Your task to perform on an android device: Open Amazon Image 0: 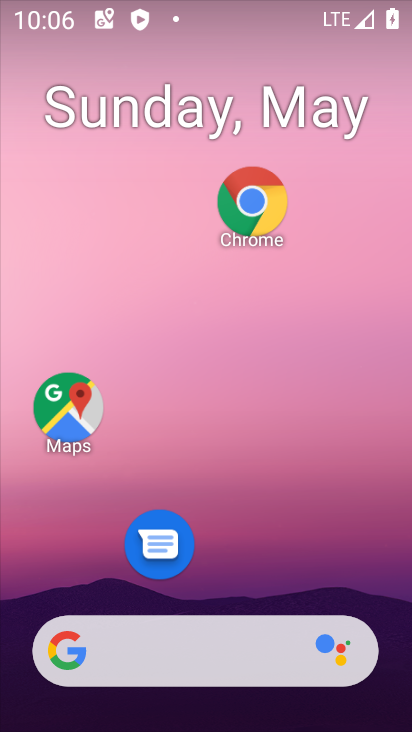
Step 0: click (72, 403)
Your task to perform on an android device: Open Amazon Image 1: 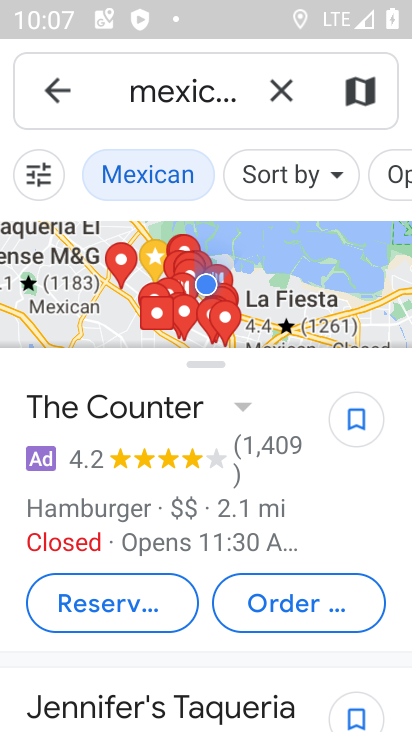
Step 1: press home button
Your task to perform on an android device: Open Amazon Image 2: 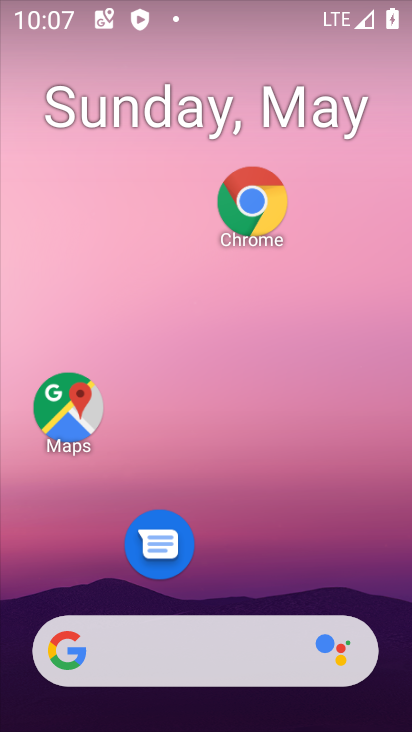
Step 2: click (256, 207)
Your task to perform on an android device: Open Amazon Image 3: 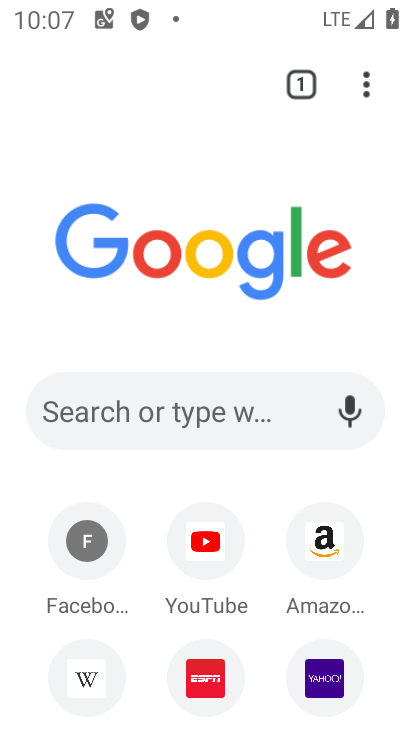
Step 3: click (330, 554)
Your task to perform on an android device: Open Amazon Image 4: 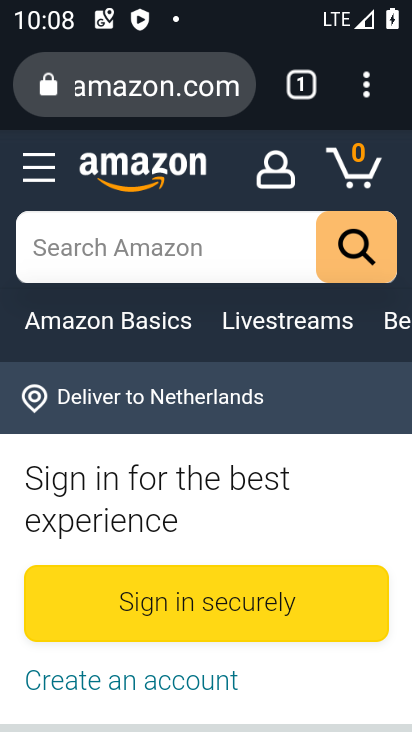
Step 4: task complete